Your task to perform on an android device: check the backup settings in the google photos Image 0: 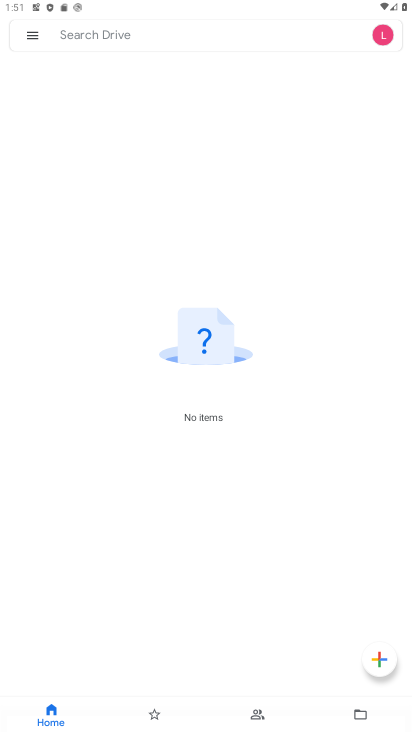
Step 0: press home button
Your task to perform on an android device: check the backup settings in the google photos Image 1: 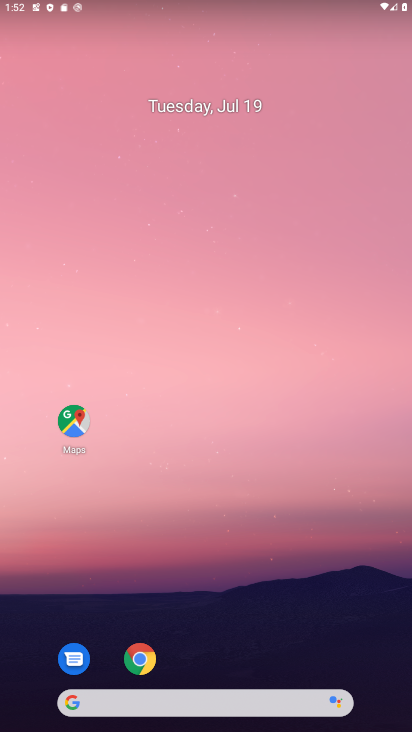
Step 1: drag from (199, 661) to (242, 245)
Your task to perform on an android device: check the backup settings in the google photos Image 2: 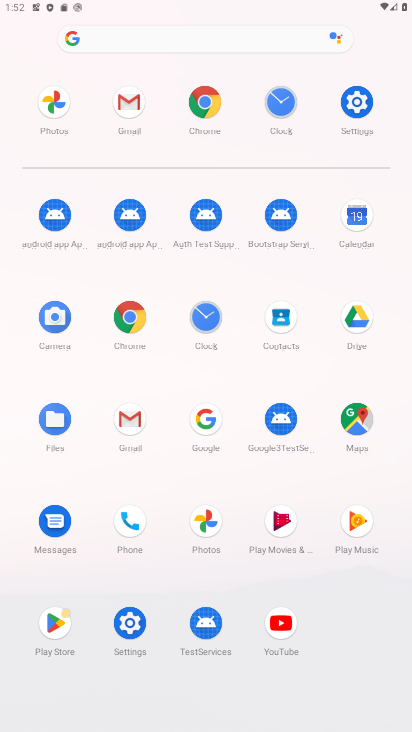
Step 2: click (113, 647)
Your task to perform on an android device: check the backup settings in the google photos Image 3: 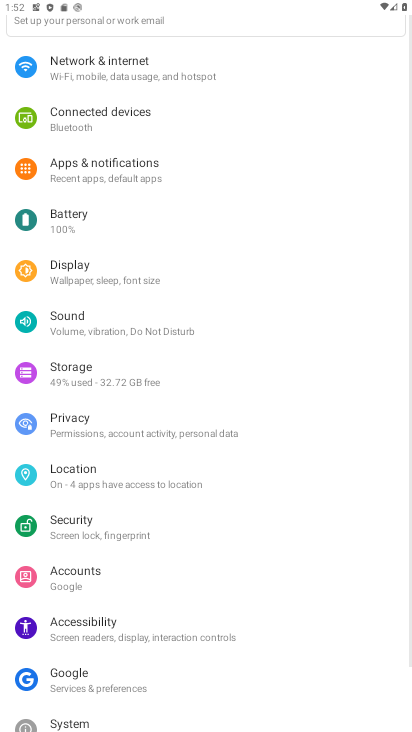
Step 3: press home button
Your task to perform on an android device: check the backup settings in the google photos Image 4: 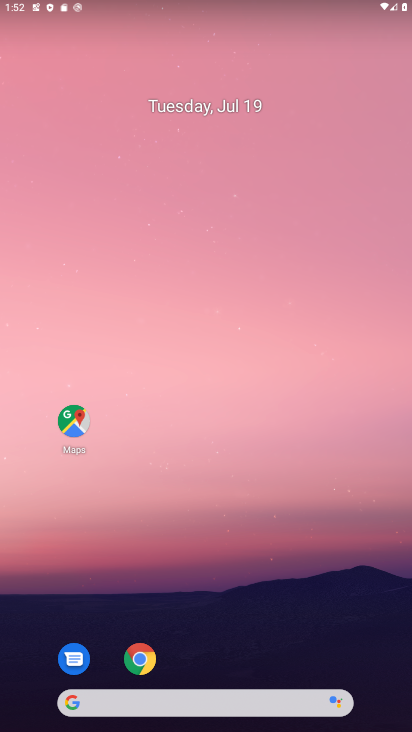
Step 4: drag from (190, 726) to (245, 141)
Your task to perform on an android device: check the backup settings in the google photos Image 5: 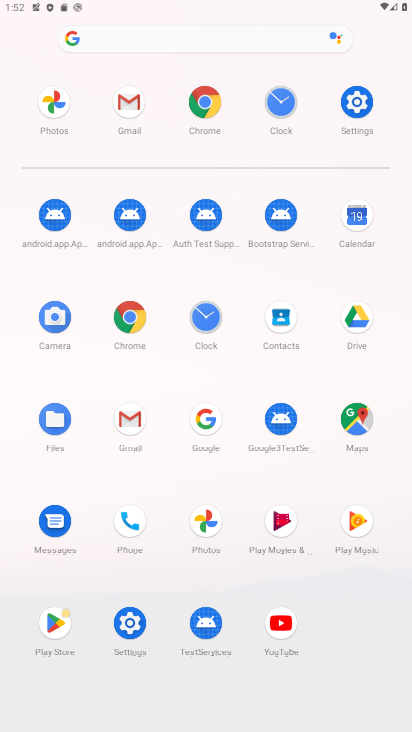
Step 5: click (203, 554)
Your task to perform on an android device: check the backup settings in the google photos Image 6: 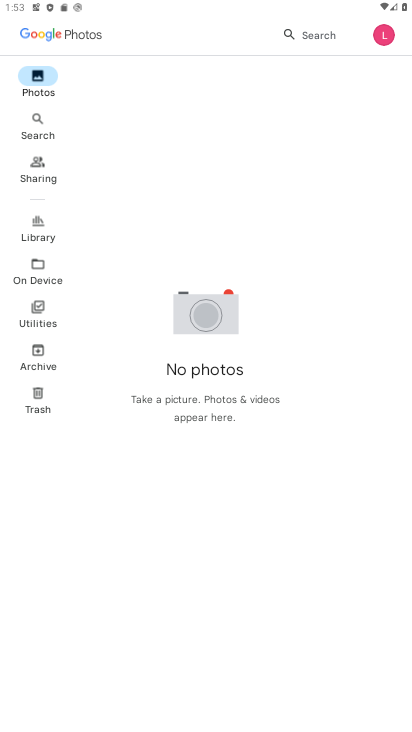
Step 6: click (381, 42)
Your task to perform on an android device: check the backup settings in the google photos Image 7: 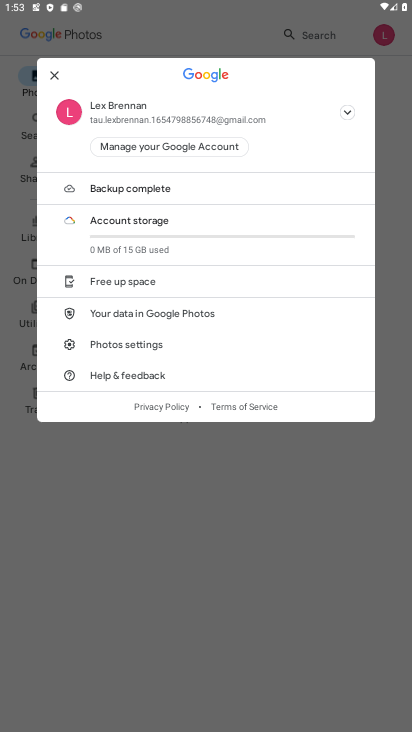
Step 7: click (125, 354)
Your task to perform on an android device: check the backup settings in the google photos Image 8: 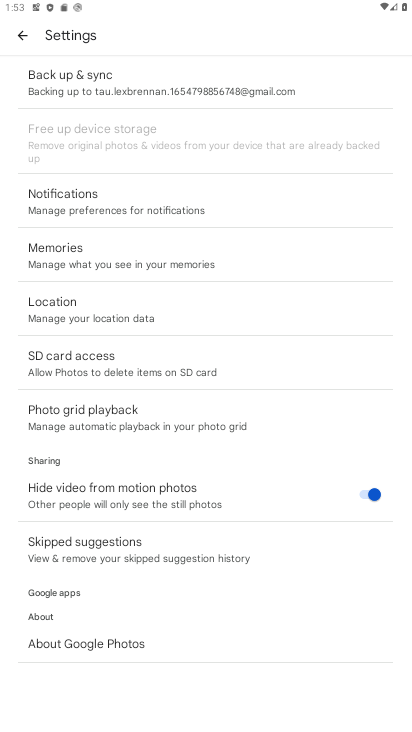
Step 8: click (205, 70)
Your task to perform on an android device: check the backup settings in the google photos Image 9: 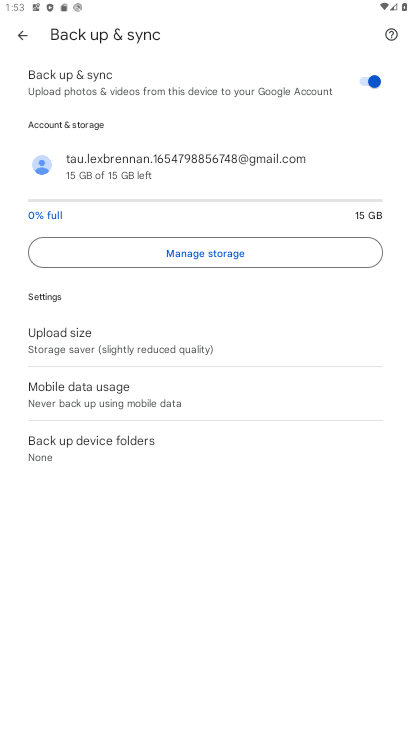
Step 9: task complete